Your task to perform on an android device: turn off priority inbox in the gmail app Image 0: 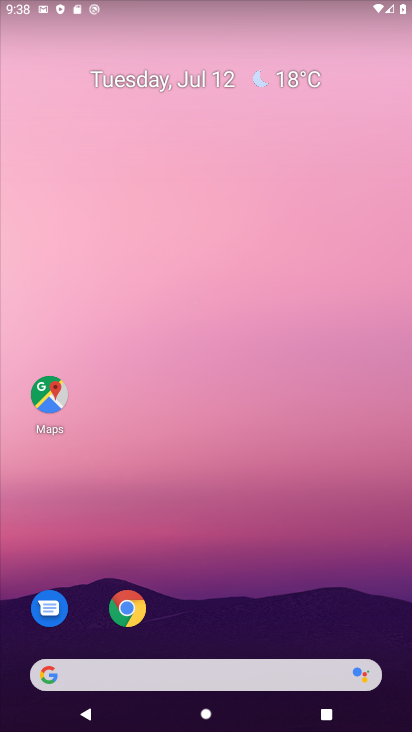
Step 0: drag from (261, 566) to (183, 189)
Your task to perform on an android device: turn off priority inbox in the gmail app Image 1: 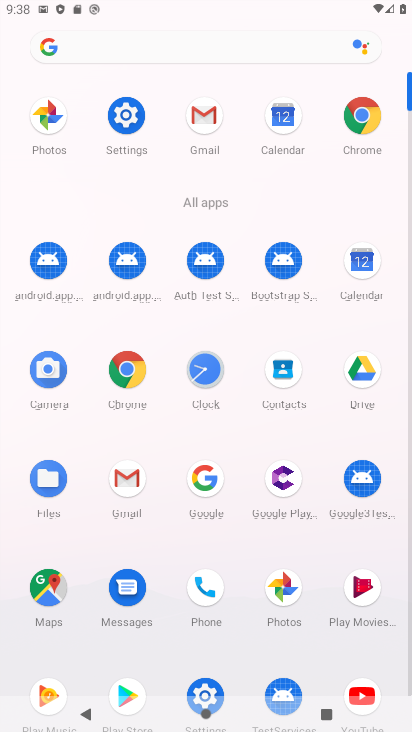
Step 1: click (205, 113)
Your task to perform on an android device: turn off priority inbox in the gmail app Image 2: 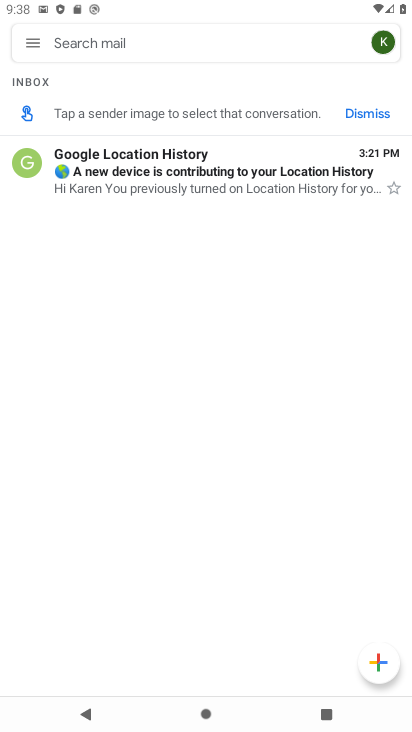
Step 2: click (34, 41)
Your task to perform on an android device: turn off priority inbox in the gmail app Image 3: 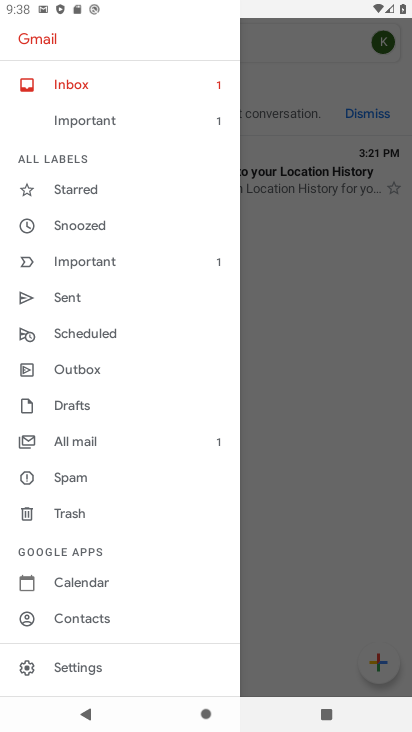
Step 3: click (74, 666)
Your task to perform on an android device: turn off priority inbox in the gmail app Image 4: 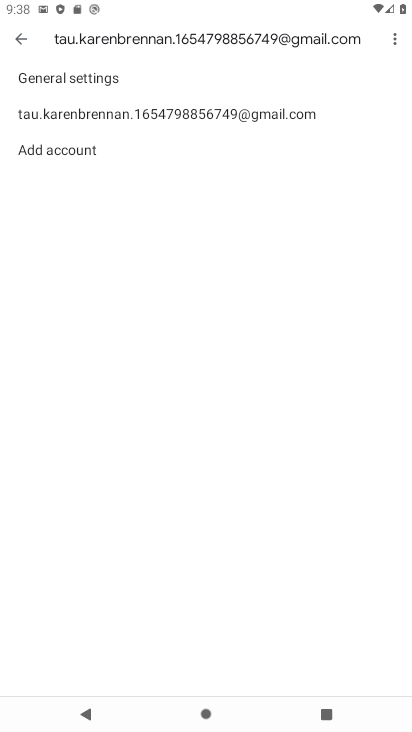
Step 4: click (76, 110)
Your task to perform on an android device: turn off priority inbox in the gmail app Image 5: 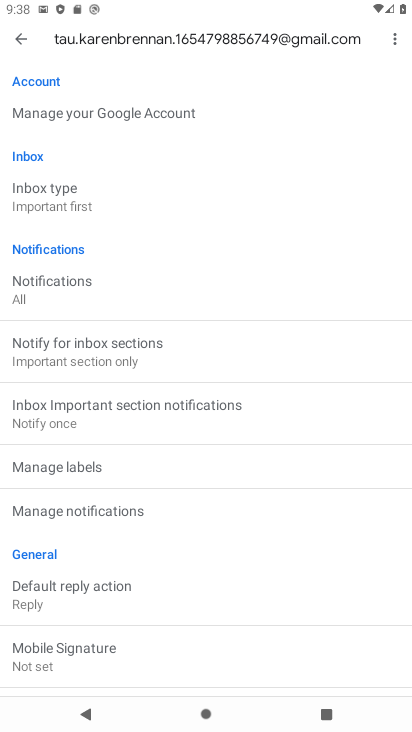
Step 5: click (53, 195)
Your task to perform on an android device: turn off priority inbox in the gmail app Image 6: 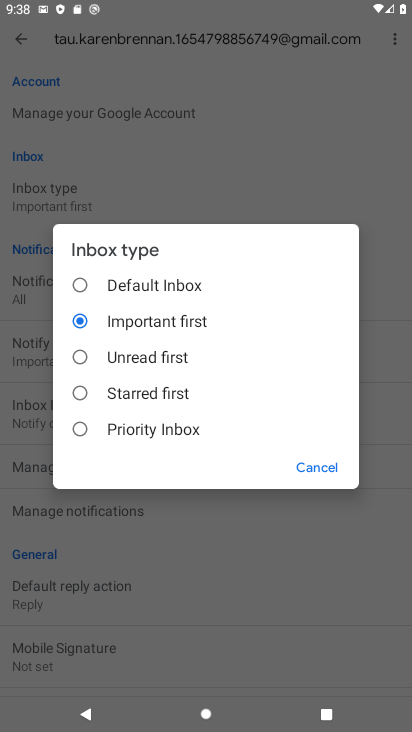
Step 6: task complete